Your task to perform on an android device: add a label to a message in the gmail app Image 0: 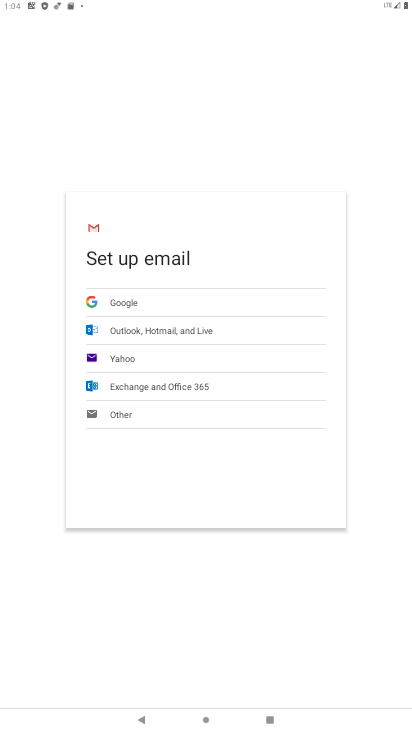
Step 0: press home button
Your task to perform on an android device: add a label to a message in the gmail app Image 1: 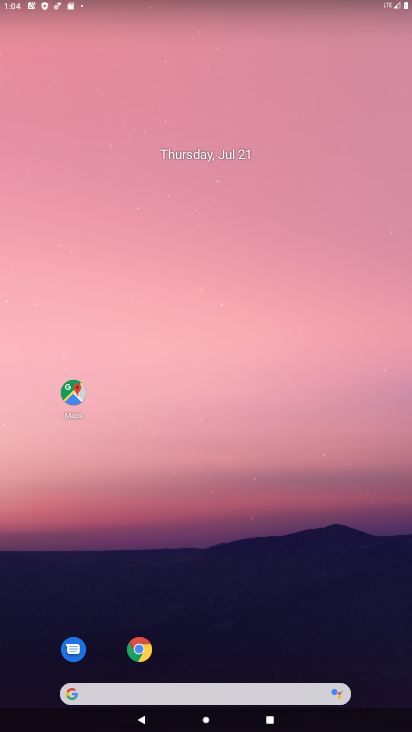
Step 1: drag from (176, 660) to (174, 63)
Your task to perform on an android device: add a label to a message in the gmail app Image 2: 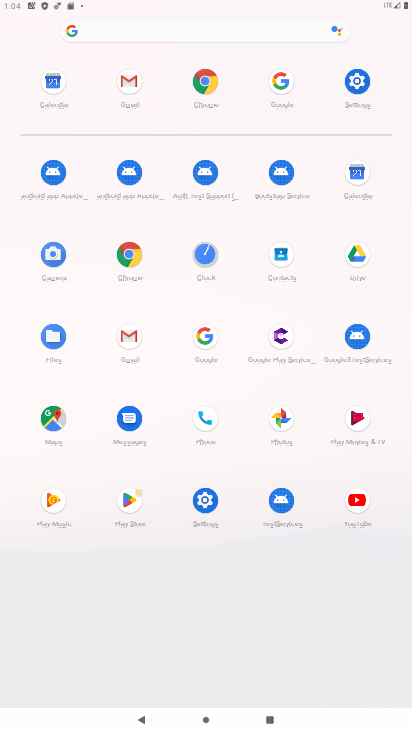
Step 2: click (130, 341)
Your task to perform on an android device: add a label to a message in the gmail app Image 3: 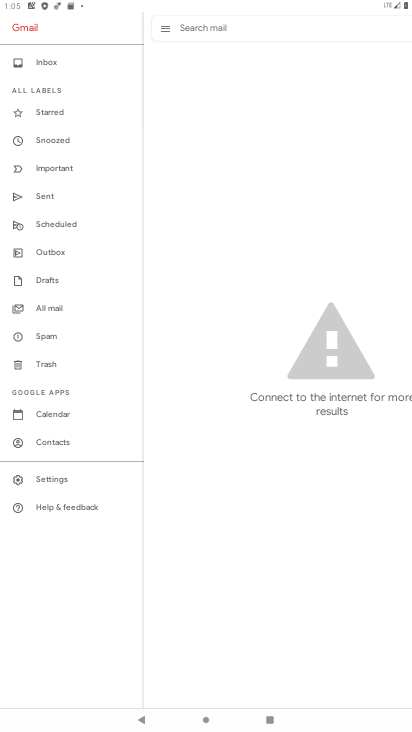
Step 3: click (50, 60)
Your task to perform on an android device: add a label to a message in the gmail app Image 4: 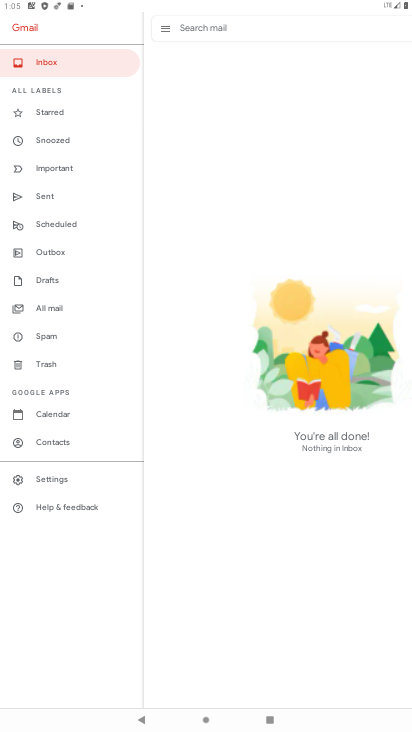
Step 4: task complete